Your task to perform on an android device: turn on location history Image 0: 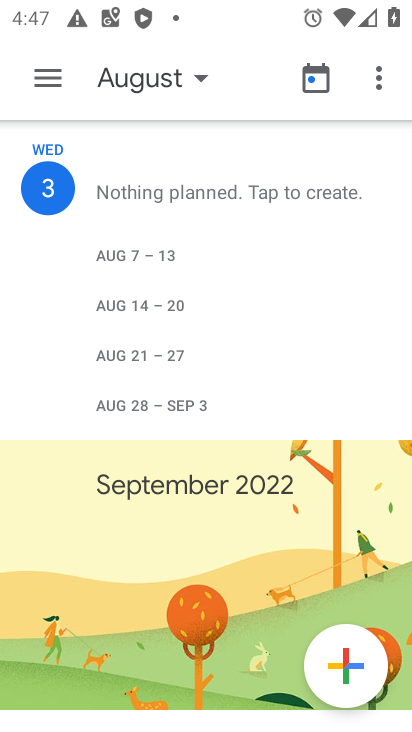
Step 0: drag from (203, 517) to (203, 114)
Your task to perform on an android device: turn on location history Image 1: 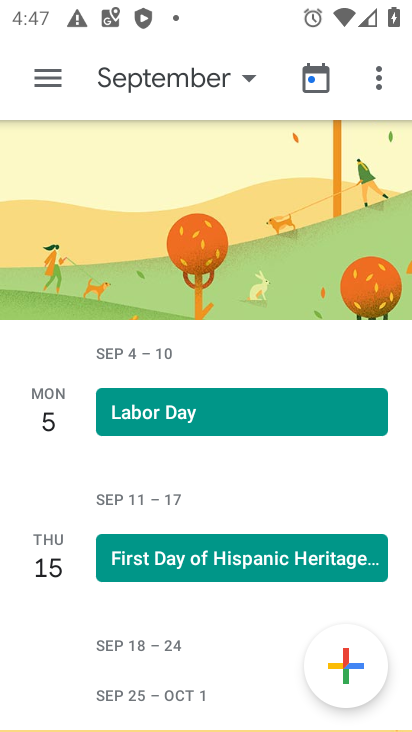
Step 1: press home button
Your task to perform on an android device: turn on location history Image 2: 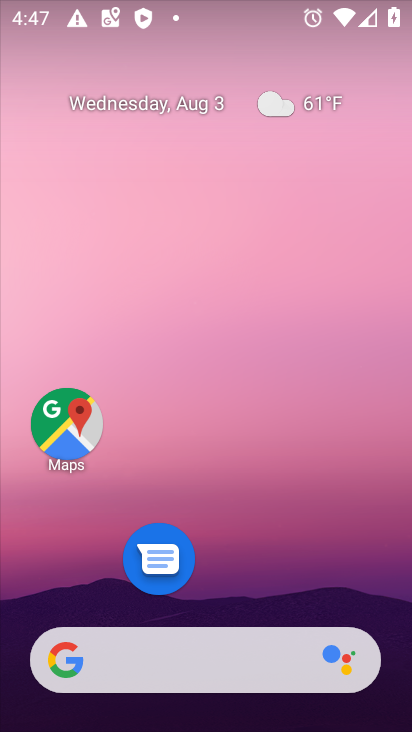
Step 2: drag from (191, 439) to (191, 165)
Your task to perform on an android device: turn on location history Image 3: 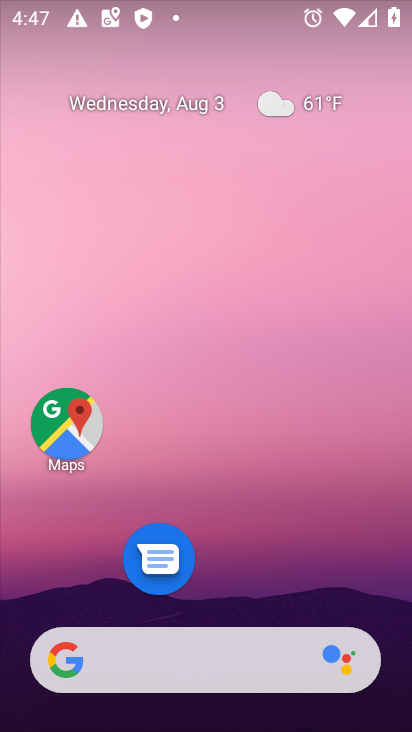
Step 3: drag from (192, 631) to (188, 172)
Your task to perform on an android device: turn on location history Image 4: 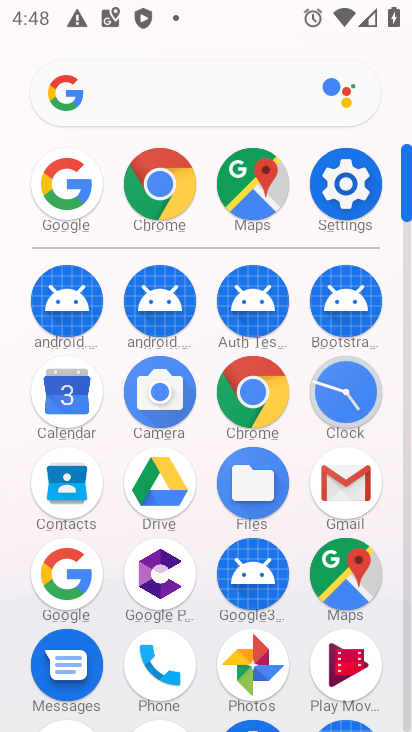
Step 4: click (339, 185)
Your task to perform on an android device: turn on location history Image 5: 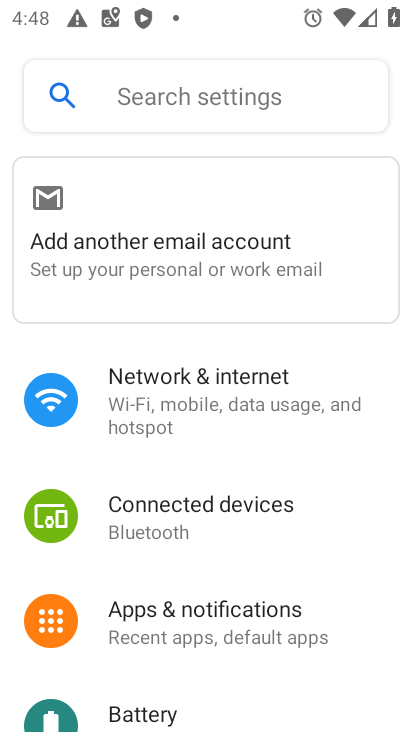
Step 5: drag from (175, 678) to (178, 292)
Your task to perform on an android device: turn on location history Image 6: 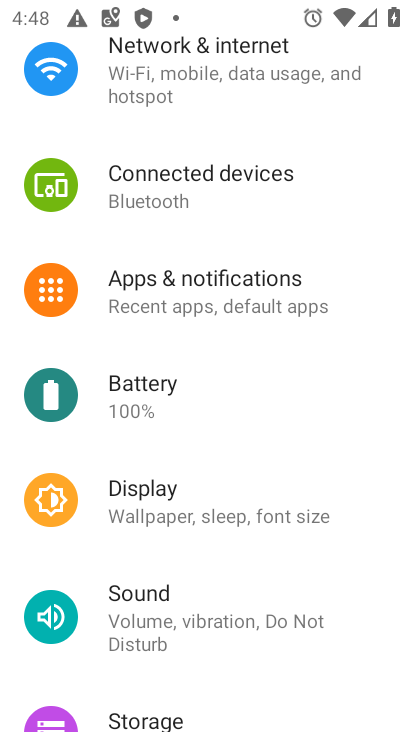
Step 6: drag from (192, 672) to (192, 334)
Your task to perform on an android device: turn on location history Image 7: 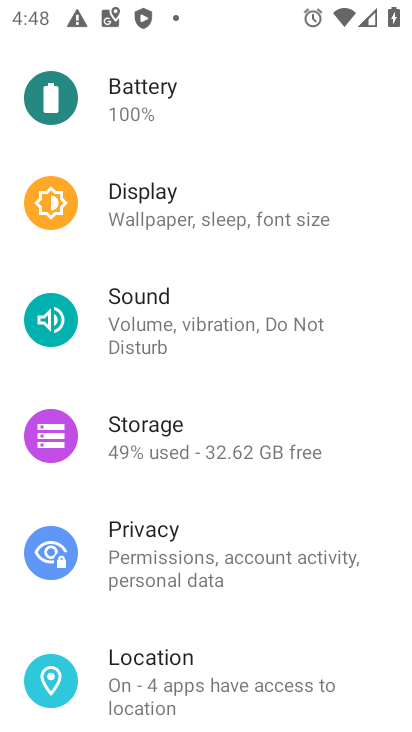
Step 7: click (157, 674)
Your task to perform on an android device: turn on location history Image 8: 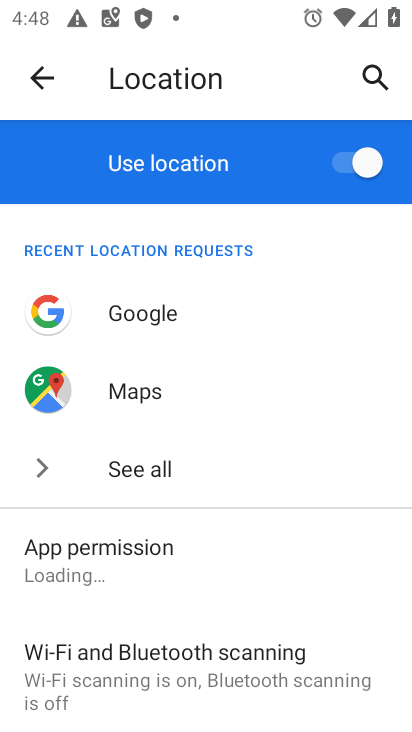
Step 8: drag from (116, 664) to (118, 239)
Your task to perform on an android device: turn on location history Image 9: 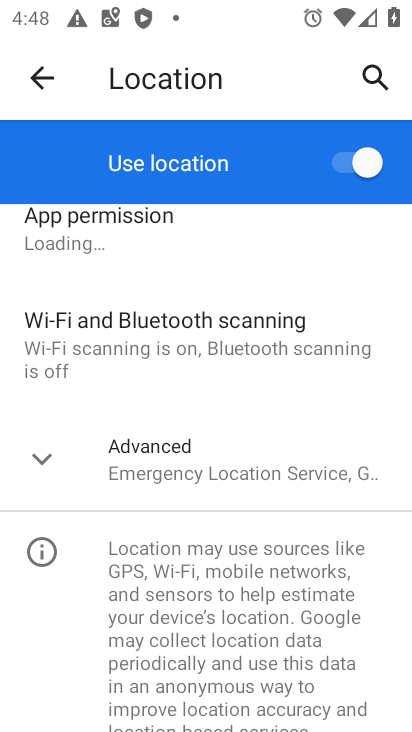
Step 9: click (159, 457)
Your task to perform on an android device: turn on location history Image 10: 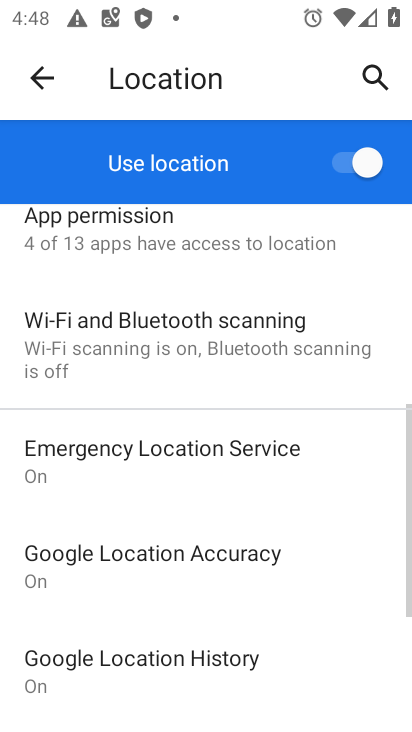
Step 10: drag from (163, 587) to (153, 278)
Your task to perform on an android device: turn on location history Image 11: 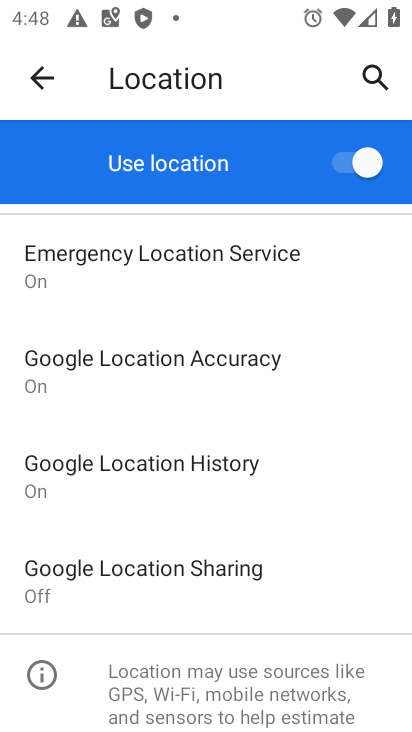
Step 11: click (135, 472)
Your task to perform on an android device: turn on location history Image 12: 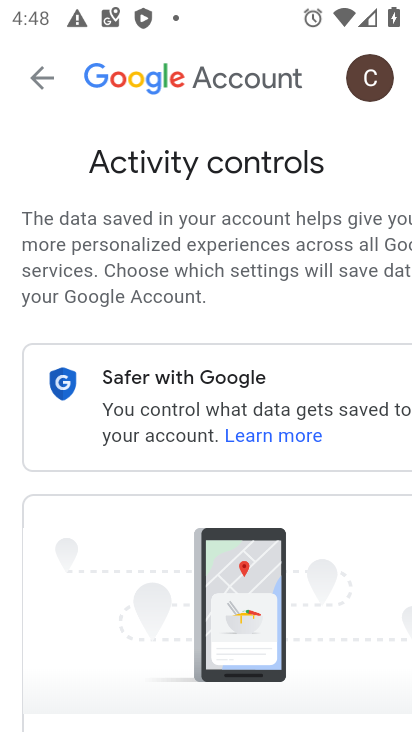
Step 12: task complete